Your task to perform on an android device: allow cookies in the chrome app Image 0: 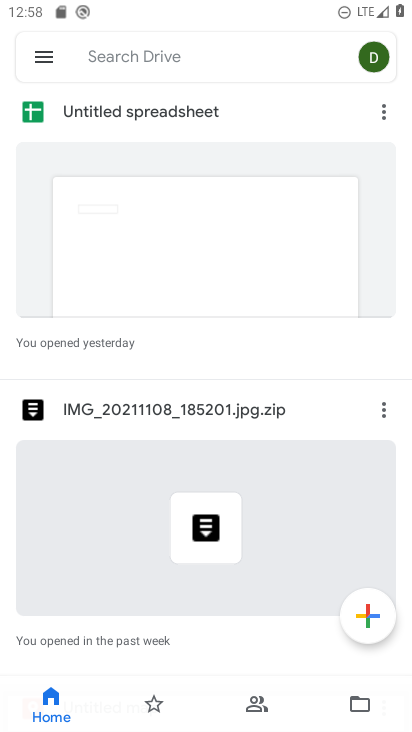
Step 0: press home button
Your task to perform on an android device: allow cookies in the chrome app Image 1: 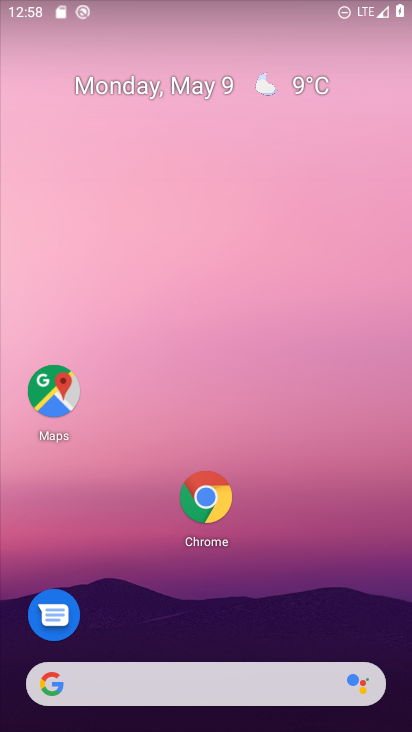
Step 1: click (196, 504)
Your task to perform on an android device: allow cookies in the chrome app Image 2: 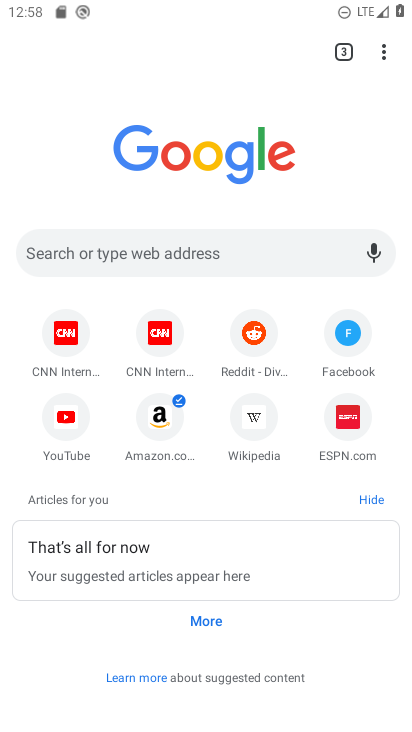
Step 2: drag from (385, 44) to (211, 440)
Your task to perform on an android device: allow cookies in the chrome app Image 3: 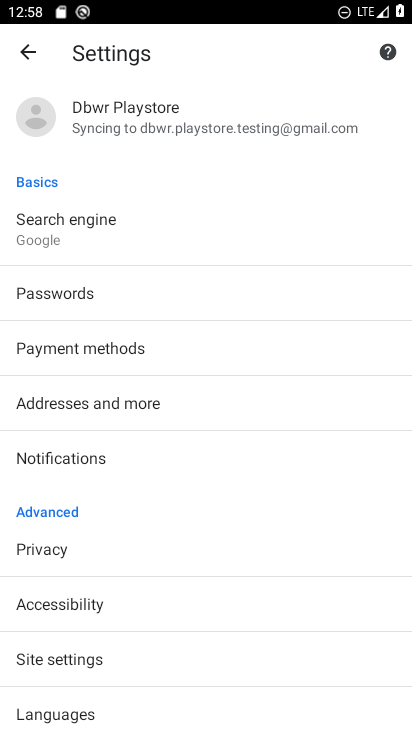
Step 3: drag from (148, 650) to (147, 280)
Your task to perform on an android device: allow cookies in the chrome app Image 4: 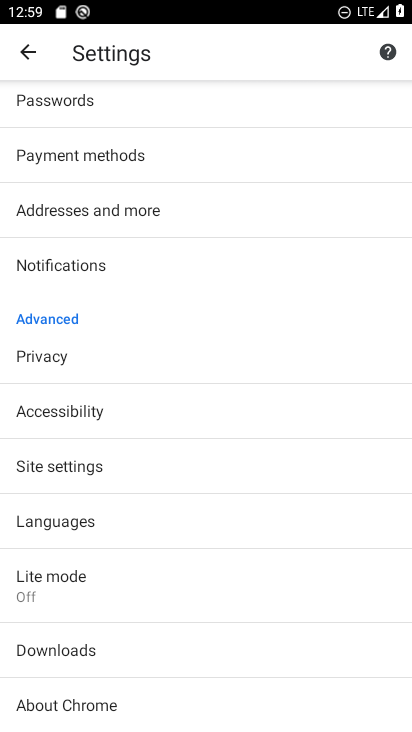
Step 4: click (109, 468)
Your task to perform on an android device: allow cookies in the chrome app Image 5: 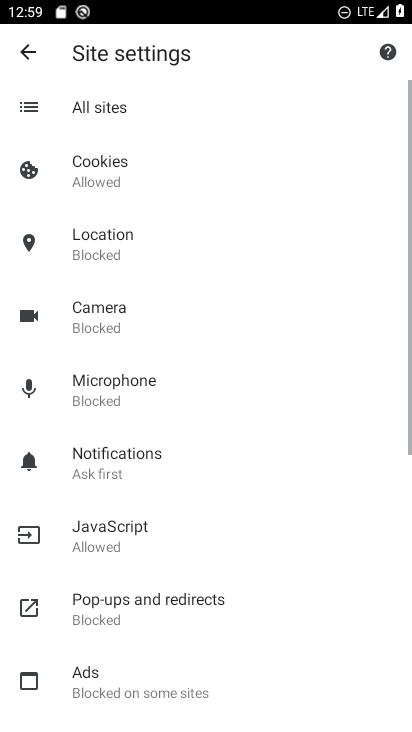
Step 5: click (245, 162)
Your task to perform on an android device: allow cookies in the chrome app Image 6: 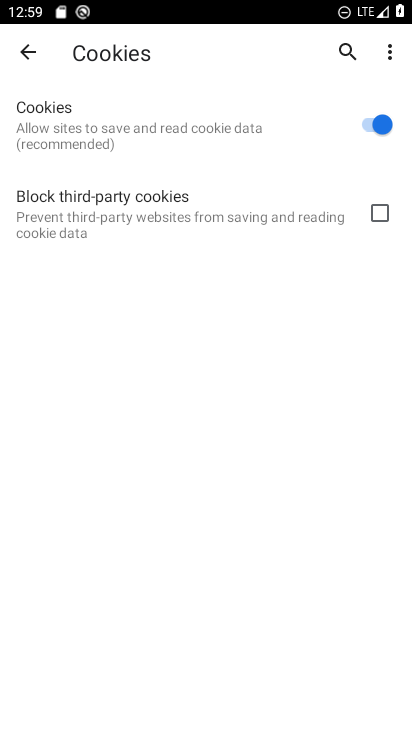
Step 6: task complete